Your task to perform on an android device: Open calendar and show me the second week of next month Image 0: 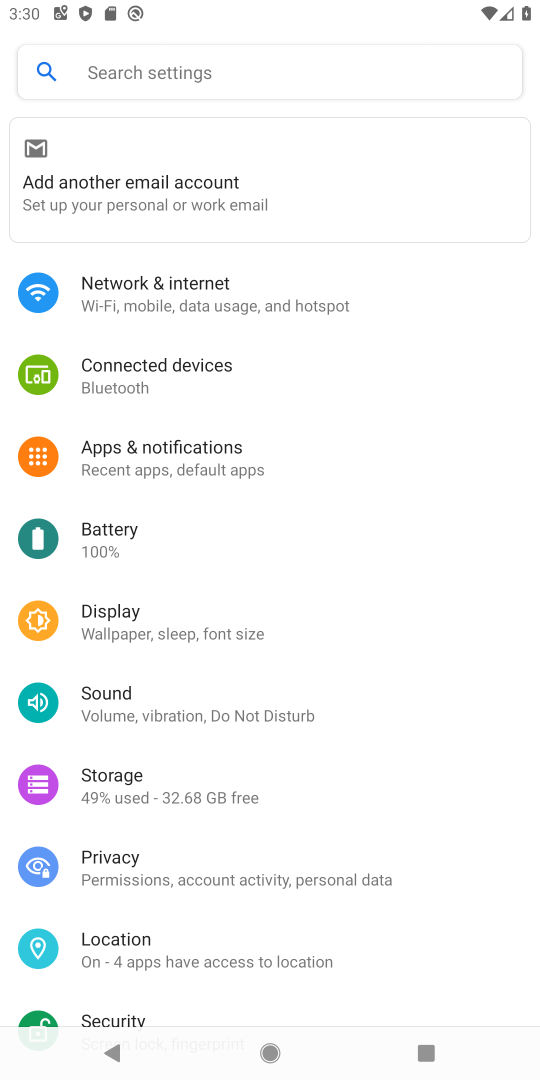
Step 0: press home button
Your task to perform on an android device: Open calendar and show me the second week of next month Image 1: 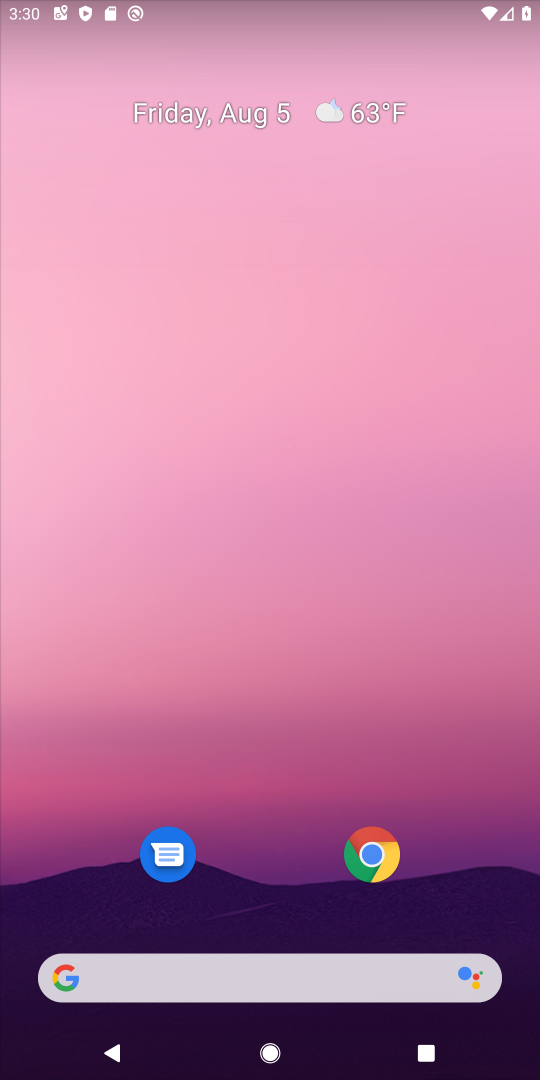
Step 1: task complete